Your task to perform on an android device: Search for a home improvement project you can do. Image 0: 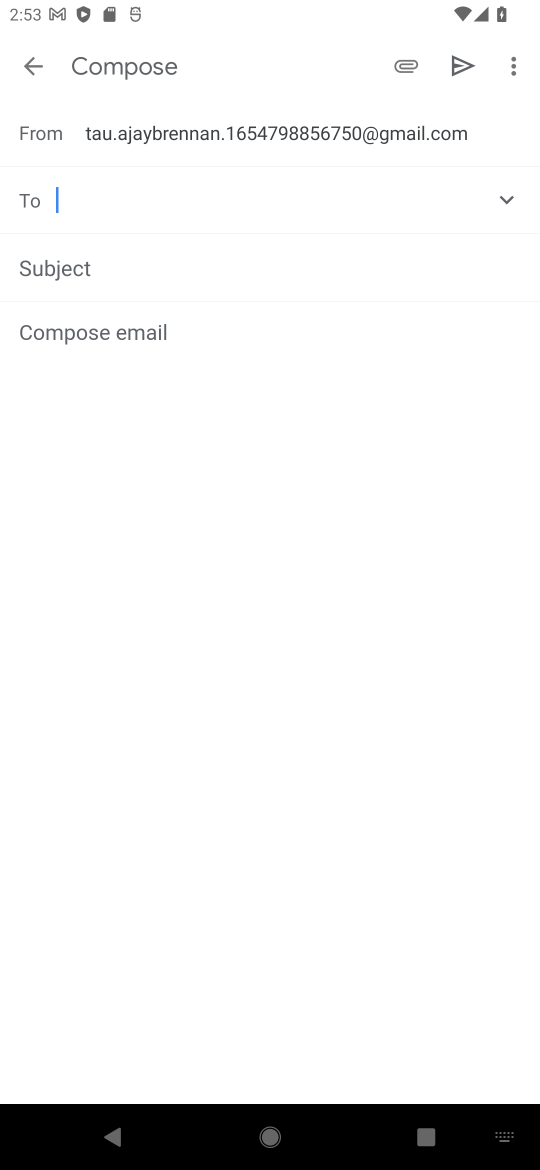
Step 0: press home button
Your task to perform on an android device: Search for a home improvement project you can do. Image 1: 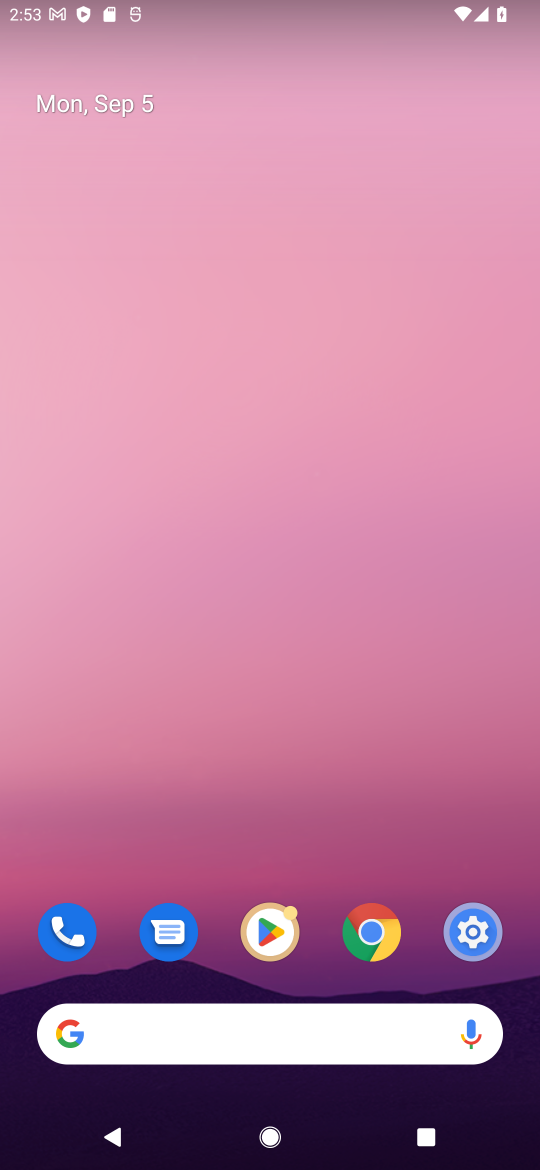
Step 1: click (213, 1036)
Your task to perform on an android device: Search for a home improvement project you can do. Image 2: 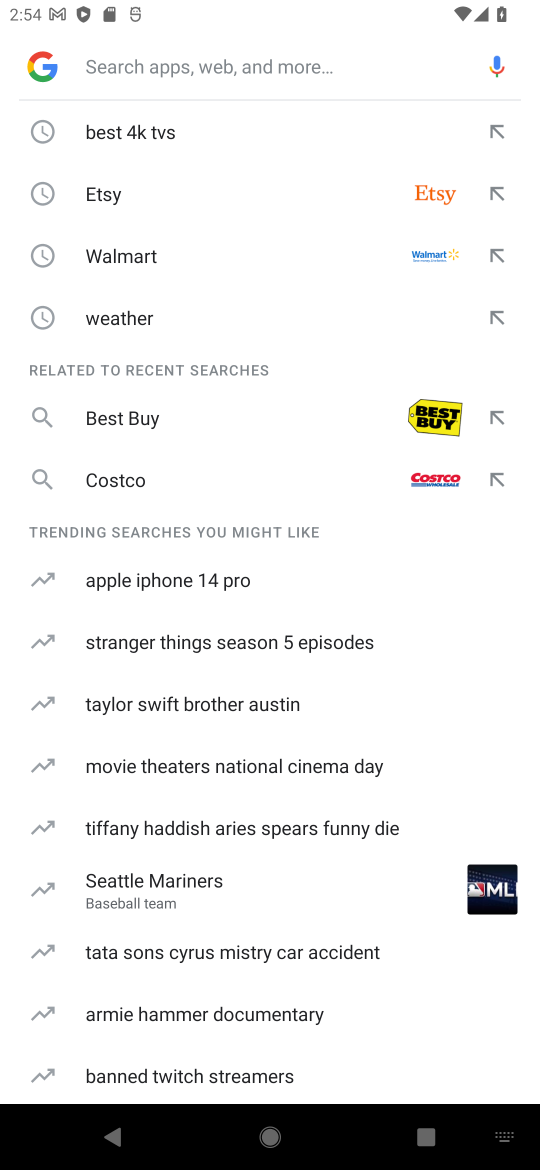
Step 2: type "home improvement project "
Your task to perform on an android device: Search for a home improvement project you can do. Image 3: 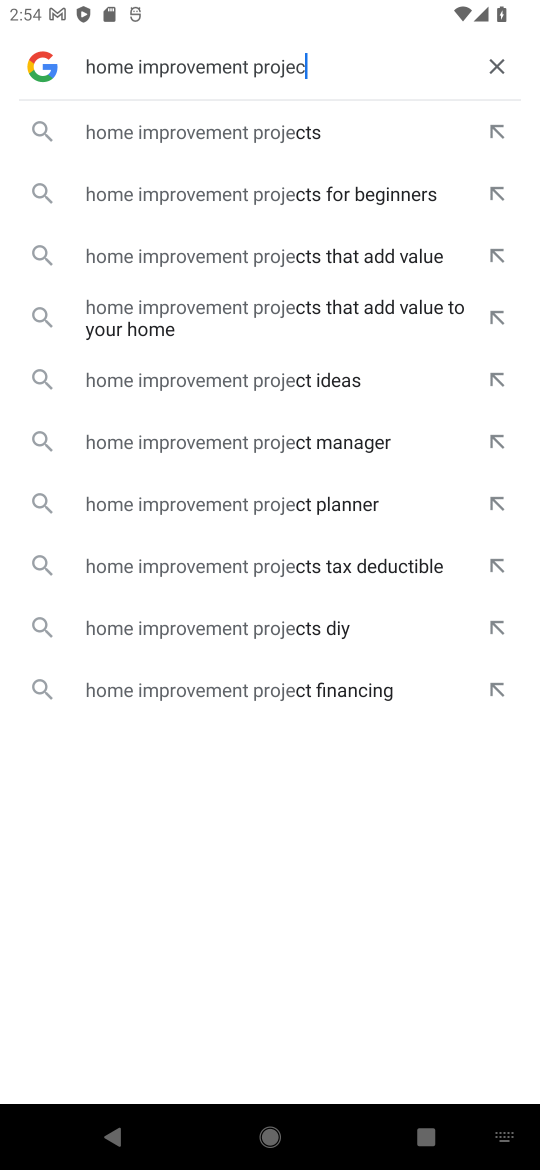
Step 3: type ""
Your task to perform on an android device: Search for a home improvement project you can do. Image 4: 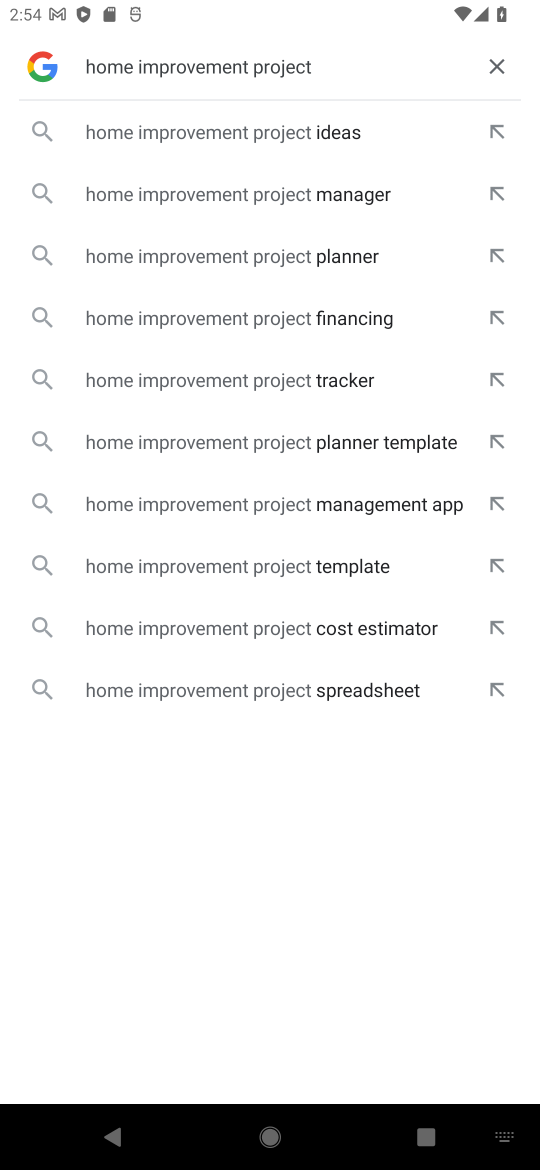
Step 4: click (348, 134)
Your task to perform on an android device: Search for a home improvement project you can do. Image 5: 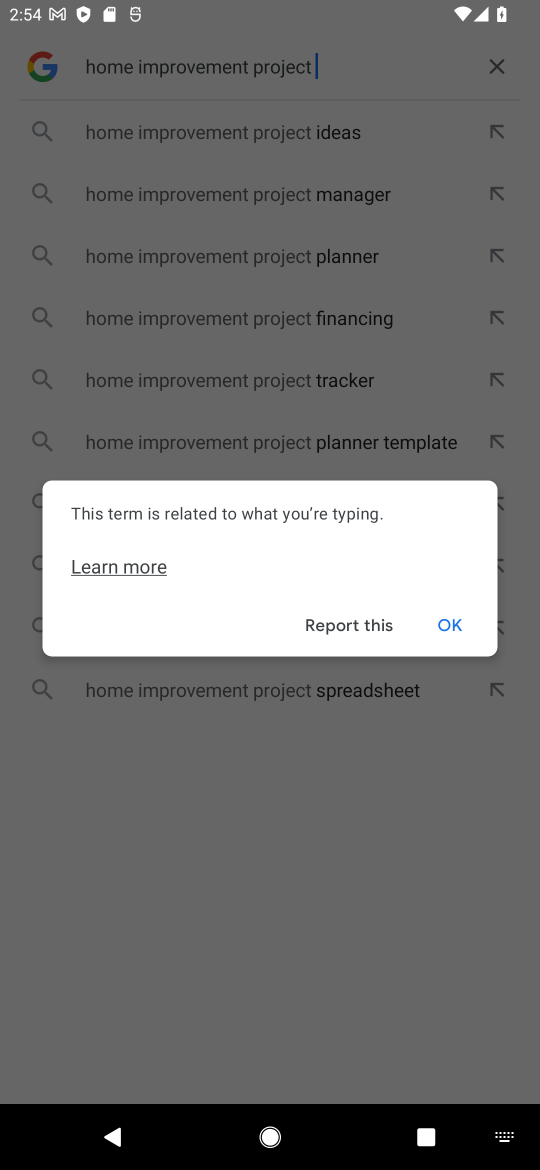
Step 5: click (440, 611)
Your task to perform on an android device: Search for a home improvement project you can do. Image 6: 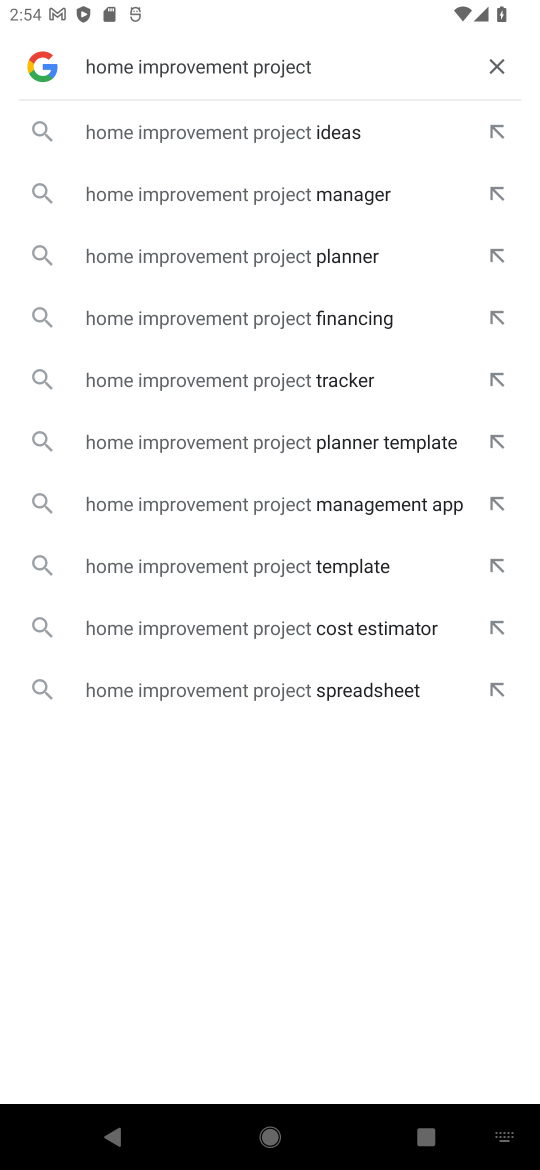
Step 6: click (348, 141)
Your task to perform on an android device: Search for a home improvement project you can do. Image 7: 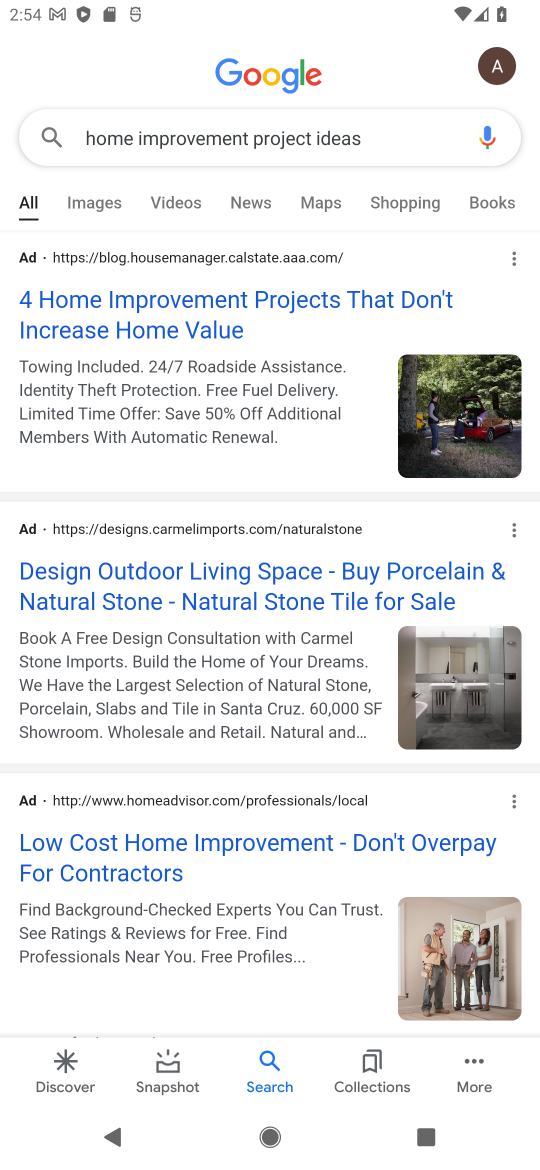
Step 7: drag from (196, 653) to (225, 461)
Your task to perform on an android device: Search for a home improvement project you can do. Image 8: 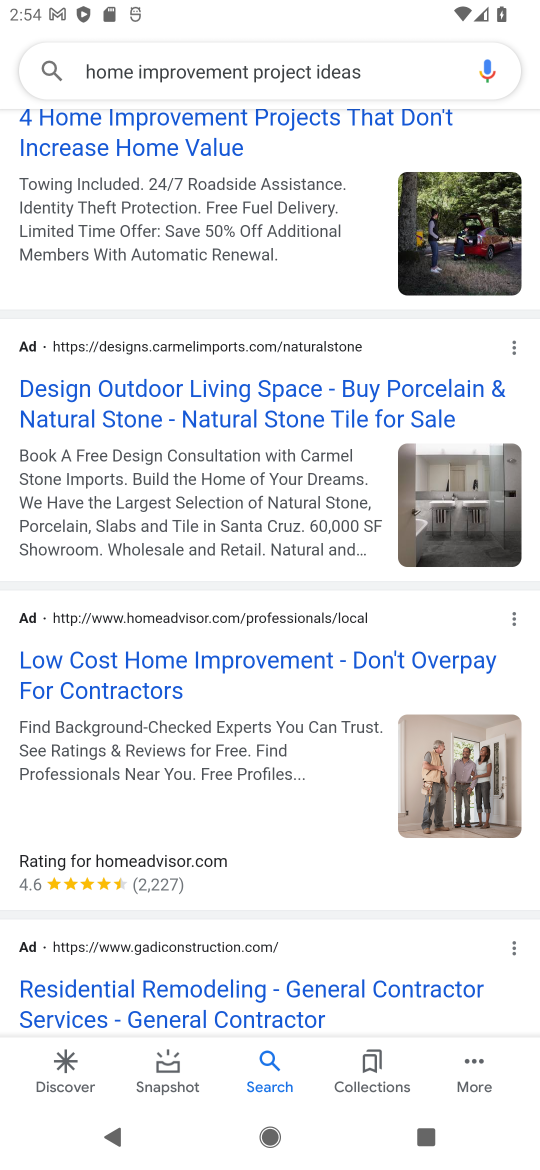
Step 8: drag from (267, 683) to (295, 429)
Your task to perform on an android device: Search for a home improvement project you can do. Image 9: 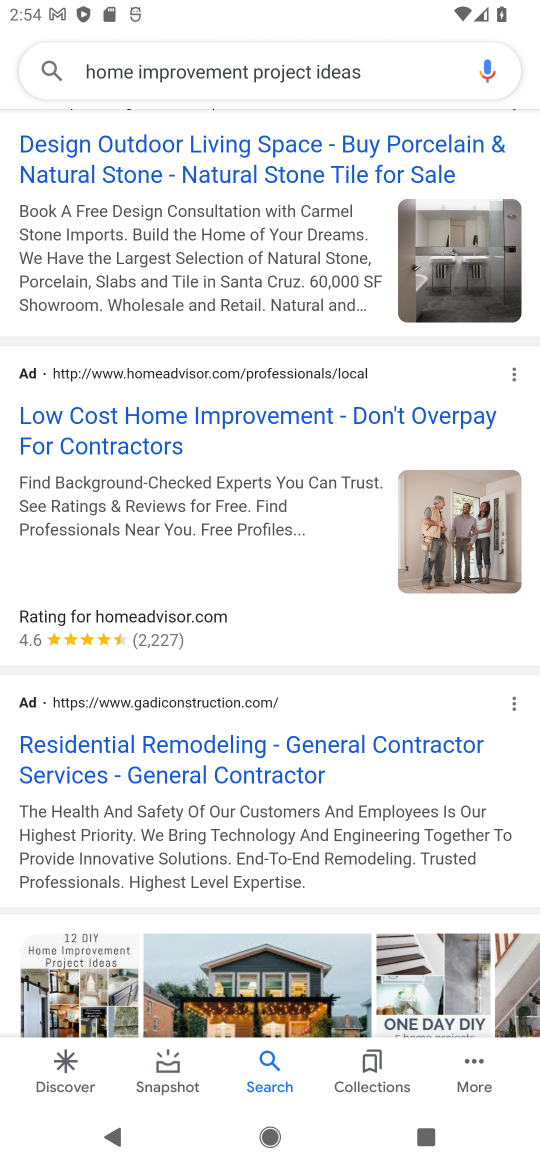
Step 9: drag from (304, 695) to (323, 352)
Your task to perform on an android device: Search for a home improvement project you can do. Image 10: 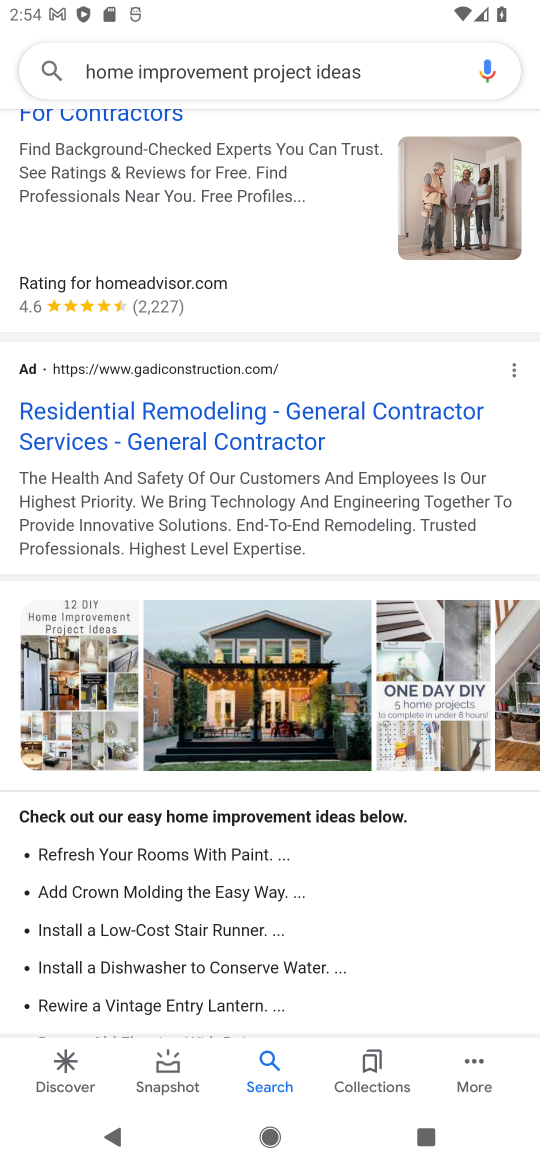
Step 10: click (296, 310)
Your task to perform on an android device: Search for a home improvement project you can do. Image 11: 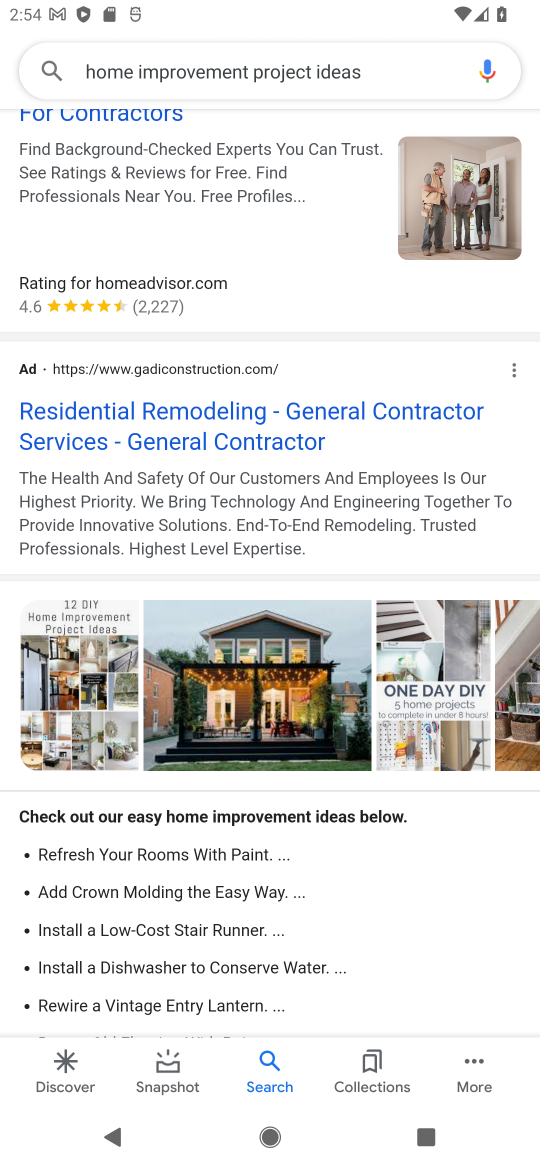
Step 11: click (395, 412)
Your task to perform on an android device: Search for a home improvement project you can do. Image 12: 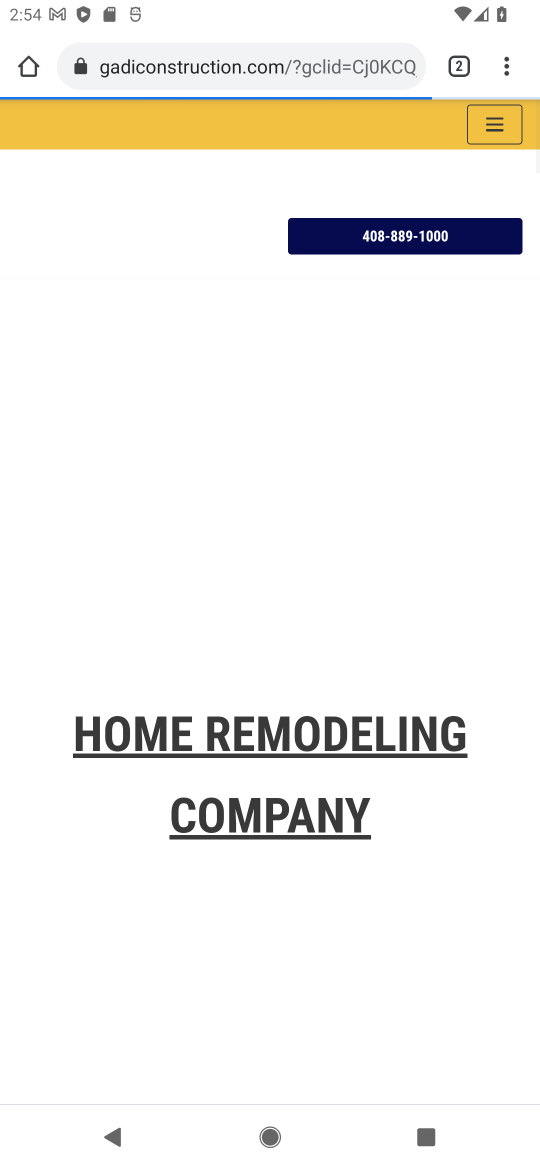
Step 12: click (394, 448)
Your task to perform on an android device: Search for a home improvement project you can do. Image 13: 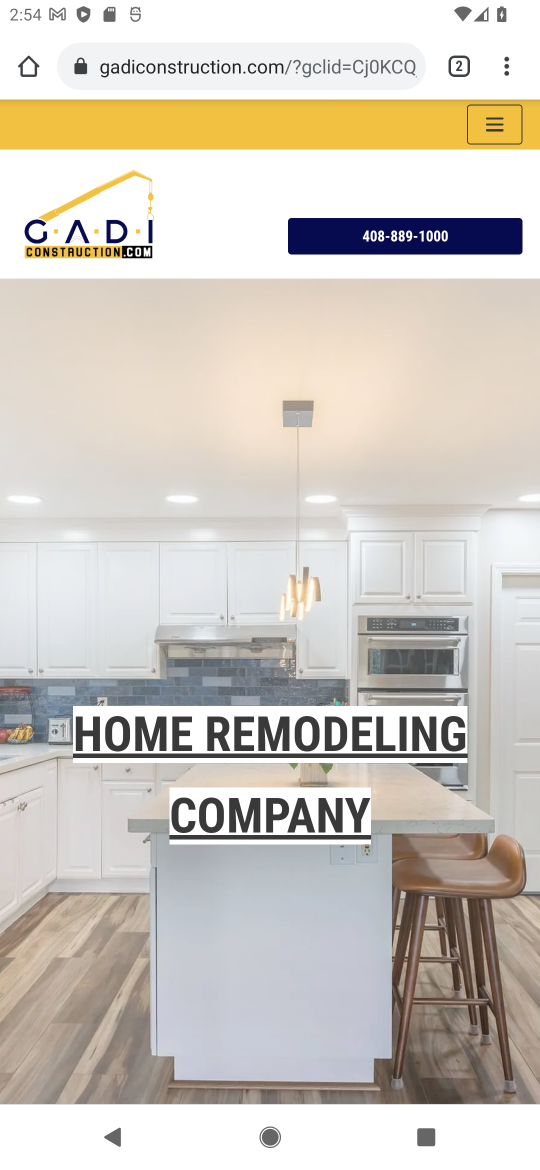
Step 13: task complete